Your task to perform on an android device: change the clock display to digital Image 0: 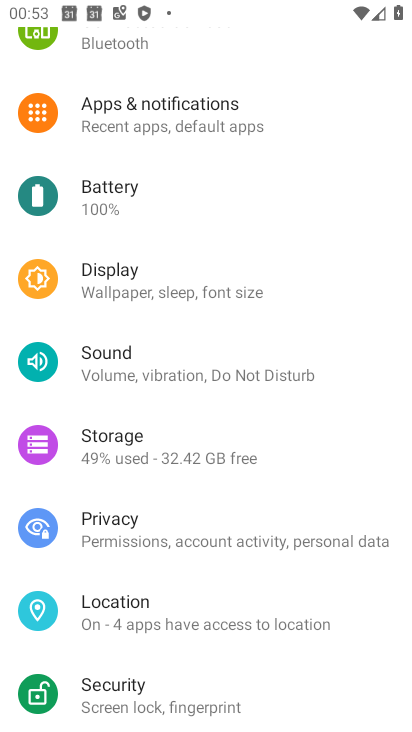
Step 0: press home button
Your task to perform on an android device: change the clock display to digital Image 1: 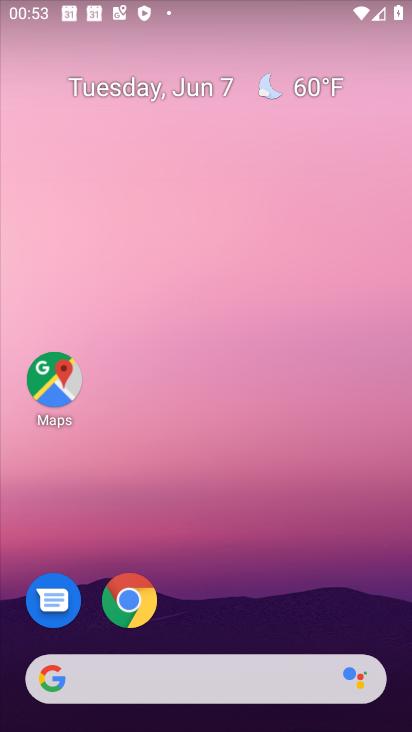
Step 1: drag from (222, 692) to (216, 178)
Your task to perform on an android device: change the clock display to digital Image 2: 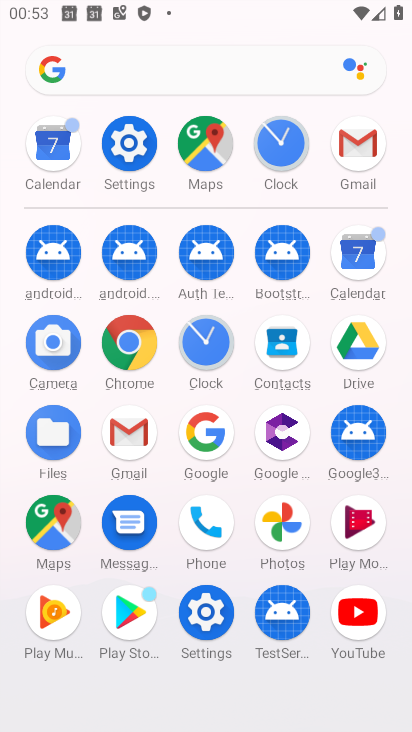
Step 2: click (214, 343)
Your task to perform on an android device: change the clock display to digital Image 3: 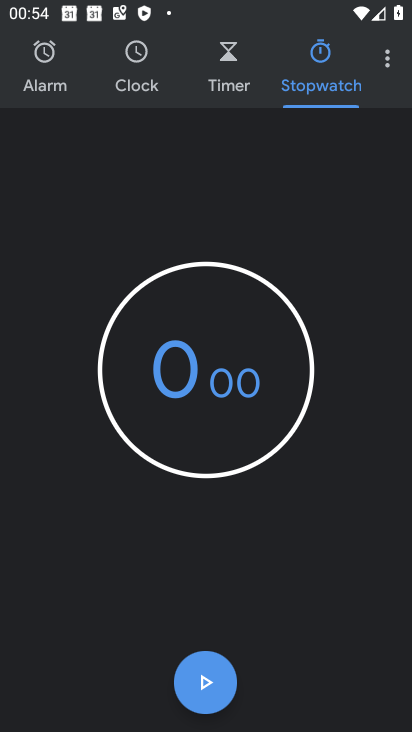
Step 3: click (389, 65)
Your task to perform on an android device: change the clock display to digital Image 4: 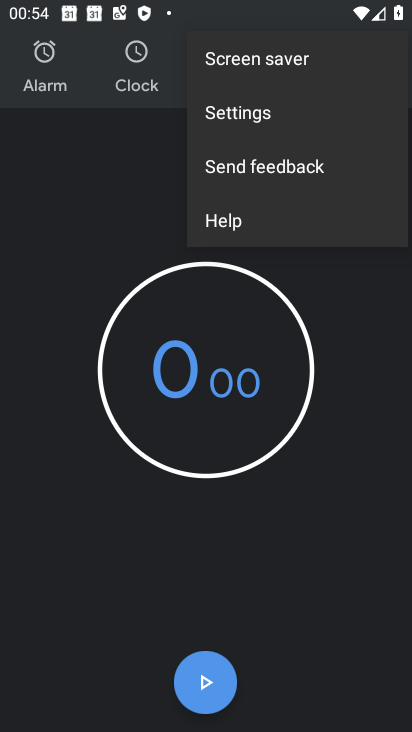
Step 4: click (235, 111)
Your task to perform on an android device: change the clock display to digital Image 5: 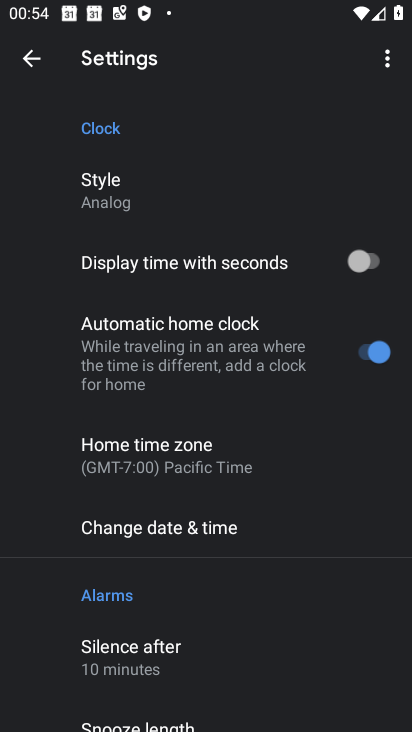
Step 5: click (117, 192)
Your task to perform on an android device: change the clock display to digital Image 6: 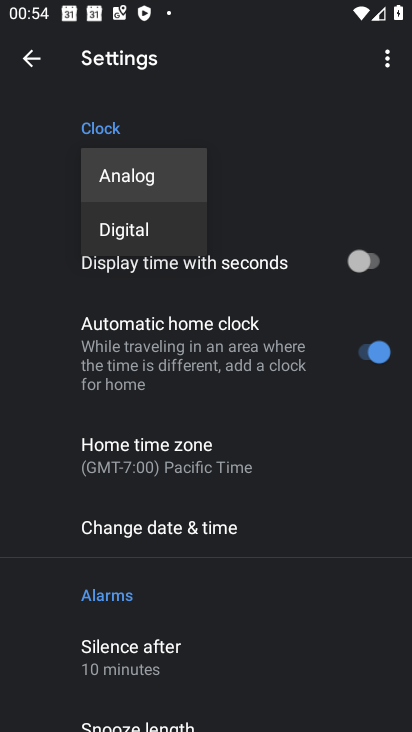
Step 6: click (128, 223)
Your task to perform on an android device: change the clock display to digital Image 7: 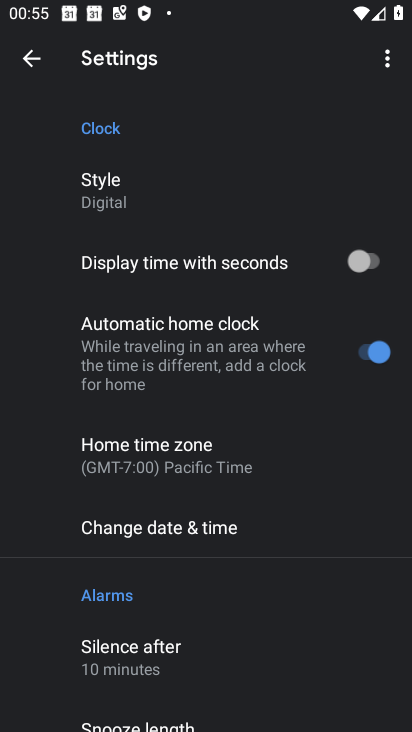
Step 7: task complete